Your task to perform on an android device: toggle improve location accuracy Image 0: 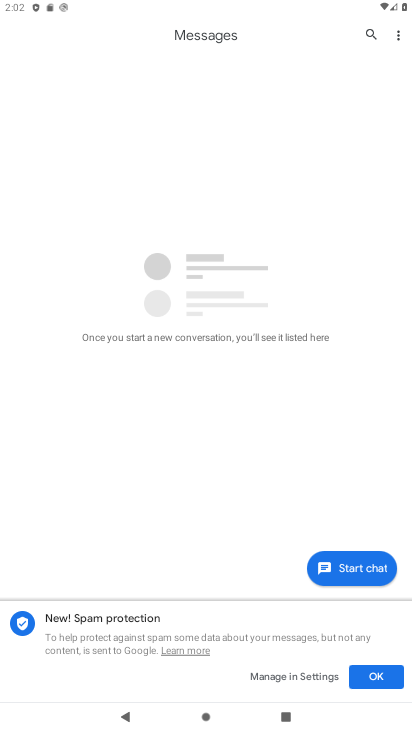
Step 0: press back button
Your task to perform on an android device: toggle improve location accuracy Image 1: 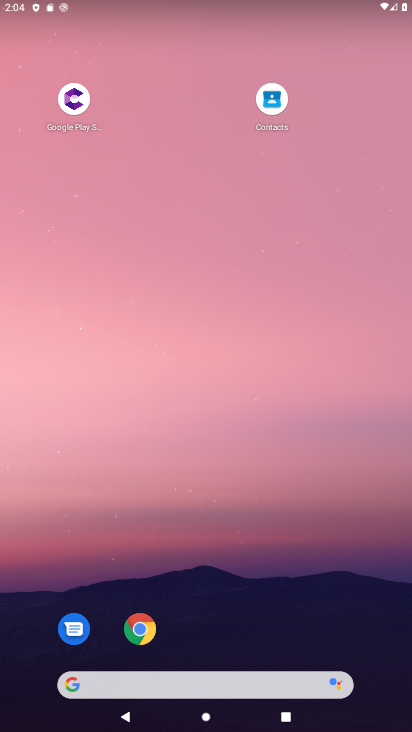
Step 1: drag from (176, 546) to (108, 96)
Your task to perform on an android device: toggle improve location accuracy Image 2: 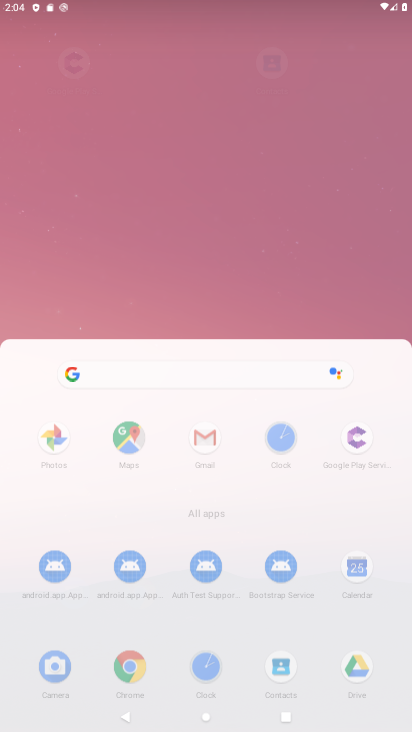
Step 2: drag from (242, 524) to (184, 130)
Your task to perform on an android device: toggle improve location accuracy Image 3: 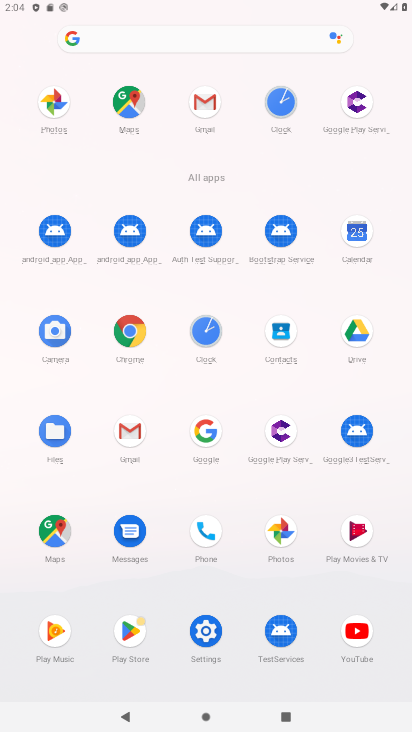
Step 3: drag from (236, 521) to (194, 152)
Your task to perform on an android device: toggle improve location accuracy Image 4: 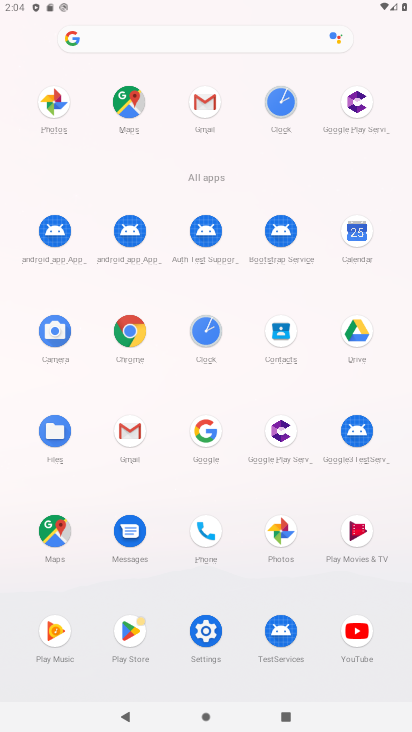
Step 4: click (208, 644)
Your task to perform on an android device: toggle improve location accuracy Image 5: 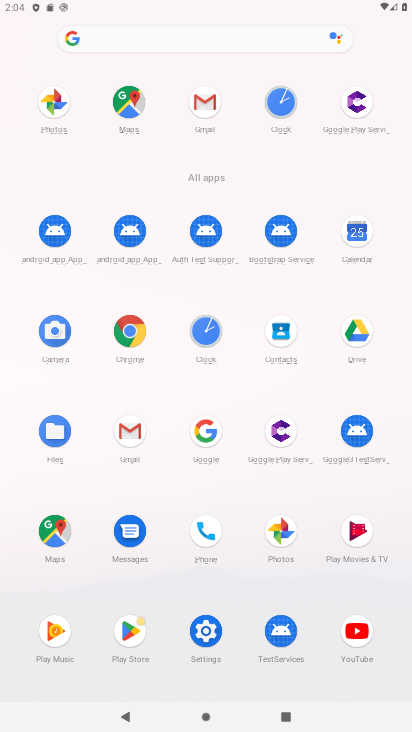
Step 5: click (208, 644)
Your task to perform on an android device: toggle improve location accuracy Image 6: 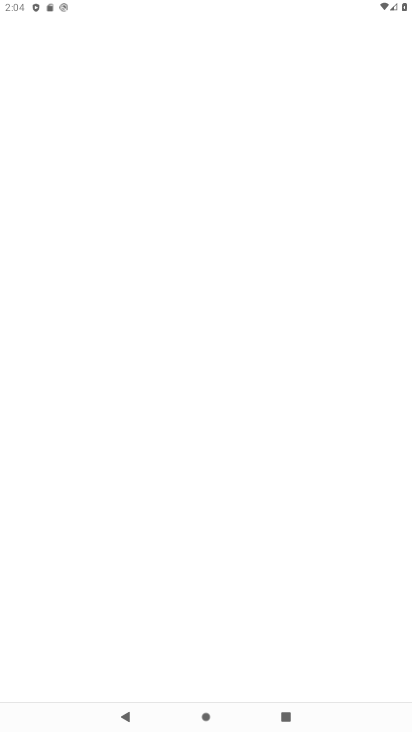
Step 6: click (205, 640)
Your task to perform on an android device: toggle improve location accuracy Image 7: 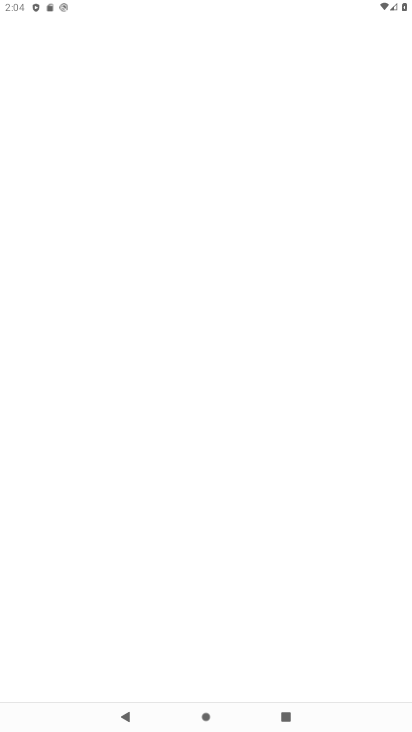
Step 7: click (205, 640)
Your task to perform on an android device: toggle improve location accuracy Image 8: 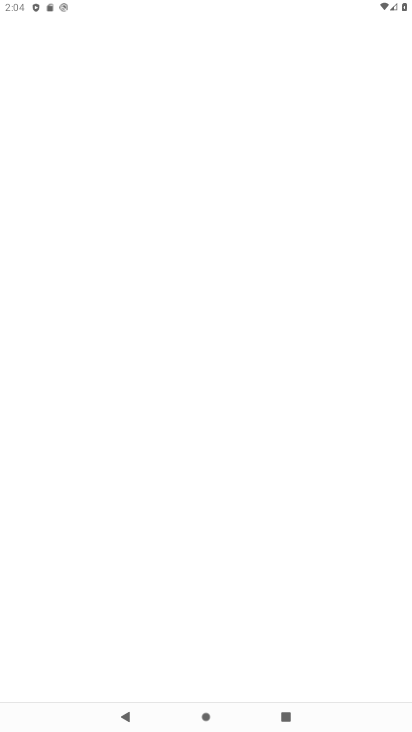
Step 8: click (204, 641)
Your task to perform on an android device: toggle improve location accuracy Image 9: 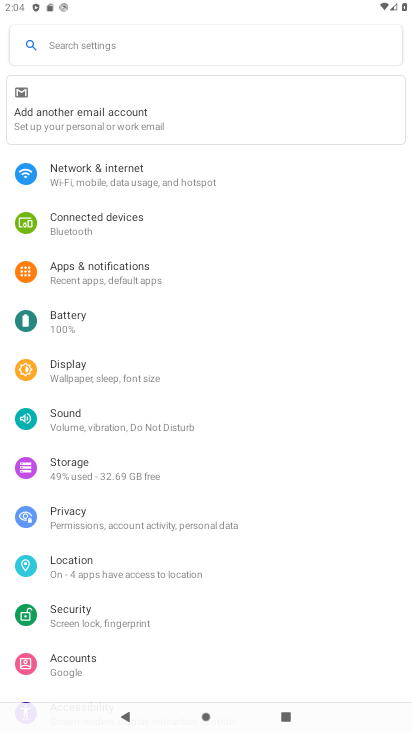
Step 9: click (79, 559)
Your task to perform on an android device: toggle improve location accuracy Image 10: 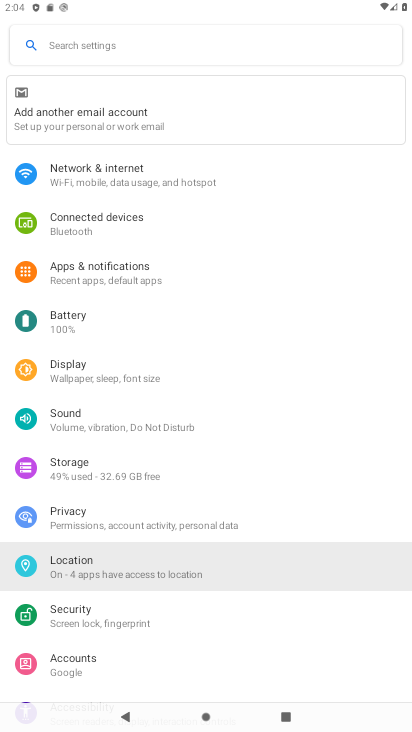
Step 10: click (84, 569)
Your task to perform on an android device: toggle improve location accuracy Image 11: 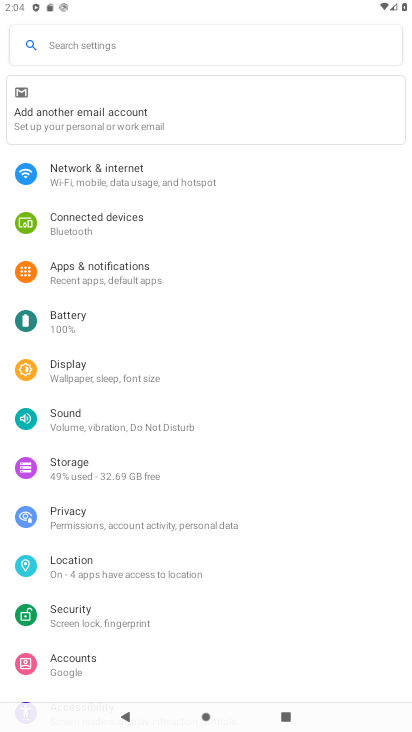
Step 11: click (85, 570)
Your task to perform on an android device: toggle improve location accuracy Image 12: 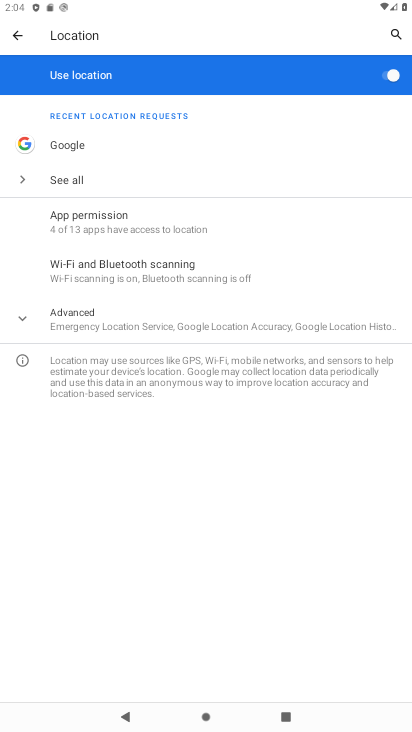
Step 12: click (90, 323)
Your task to perform on an android device: toggle improve location accuracy Image 13: 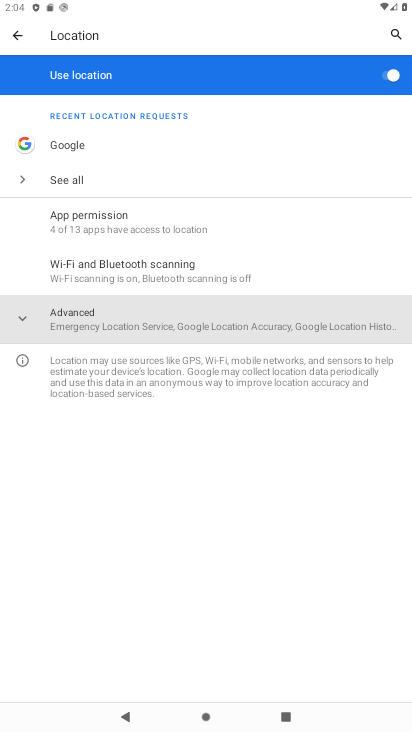
Step 13: click (90, 323)
Your task to perform on an android device: toggle improve location accuracy Image 14: 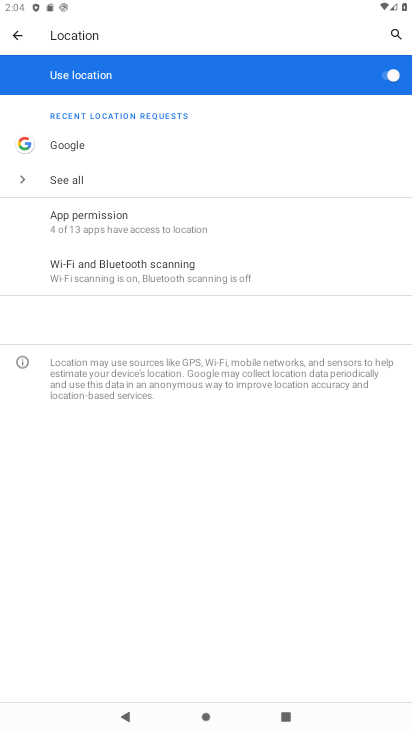
Step 14: click (90, 323)
Your task to perform on an android device: toggle improve location accuracy Image 15: 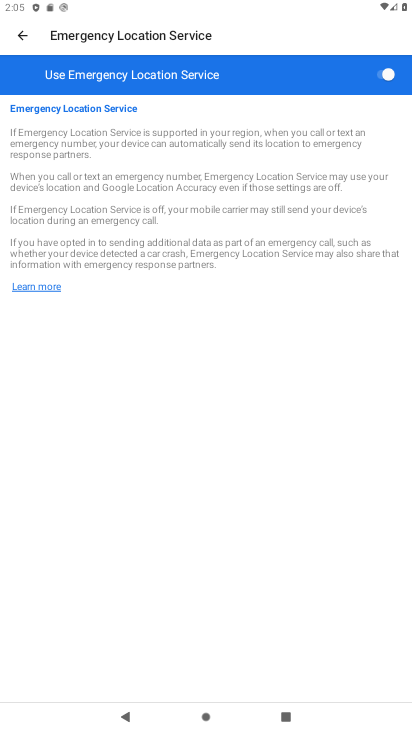
Step 15: click (14, 38)
Your task to perform on an android device: toggle improve location accuracy Image 16: 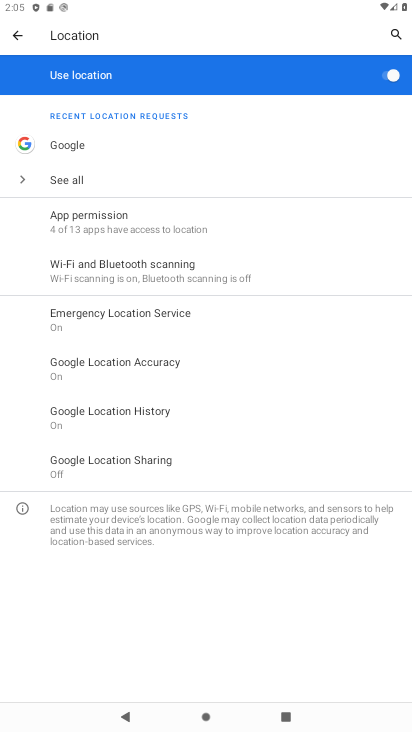
Step 16: click (142, 356)
Your task to perform on an android device: toggle improve location accuracy Image 17: 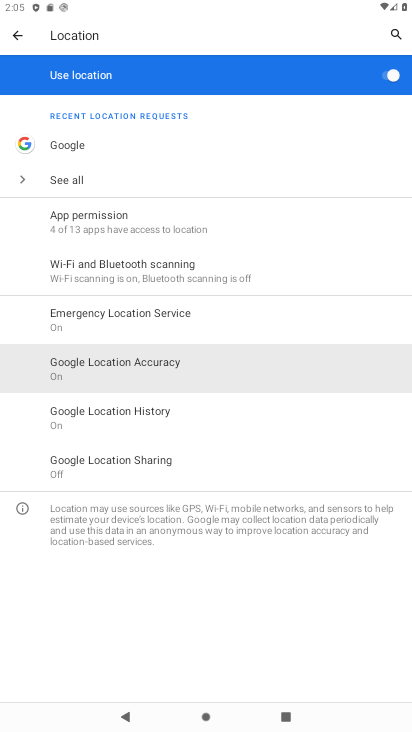
Step 17: click (141, 354)
Your task to perform on an android device: toggle improve location accuracy Image 18: 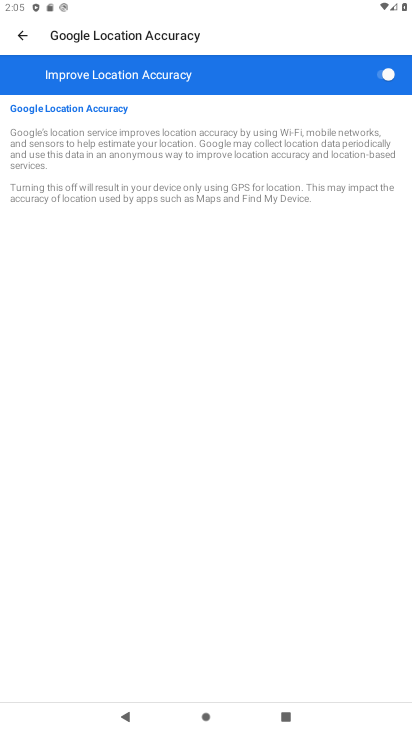
Step 18: task complete